Your task to perform on an android device: Open accessibility settings Image 0: 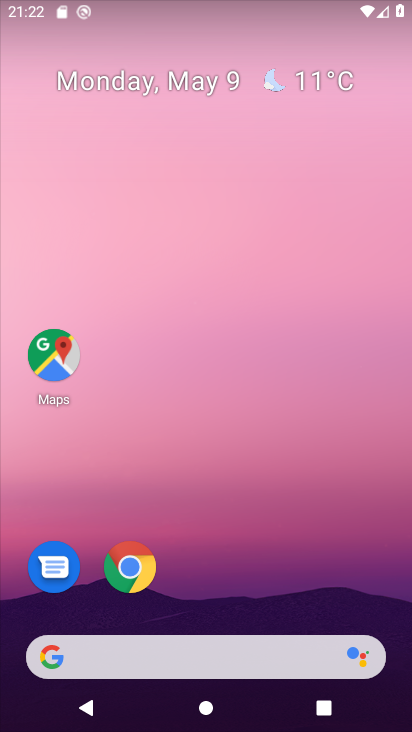
Step 0: drag from (270, 504) to (237, 80)
Your task to perform on an android device: Open accessibility settings Image 1: 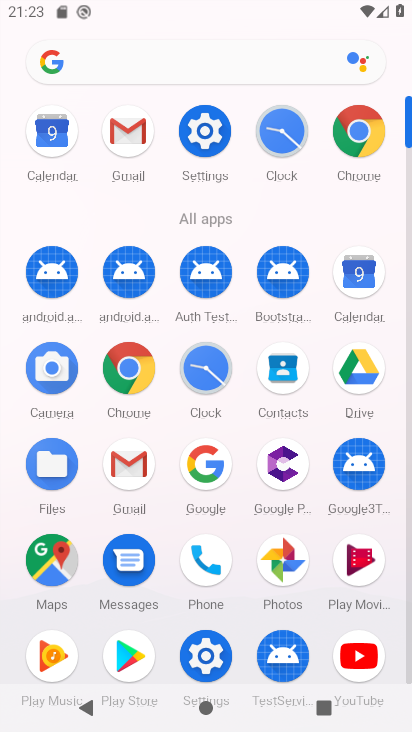
Step 1: click (210, 127)
Your task to perform on an android device: Open accessibility settings Image 2: 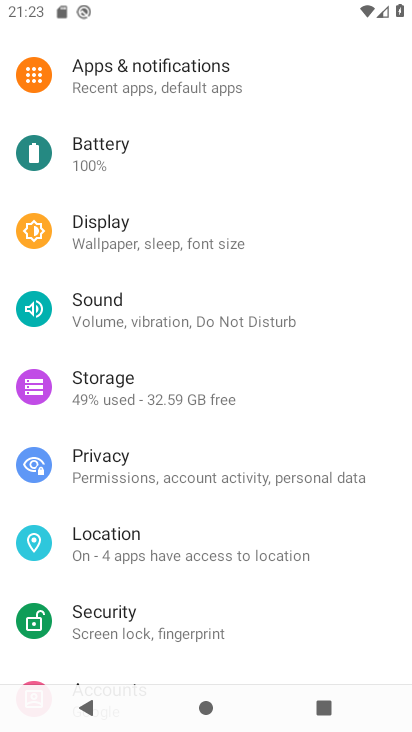
Step 2: drag from (188, 616) to (217, 195)
Your task to perform on an android device: Open accessibility settings Image 3: 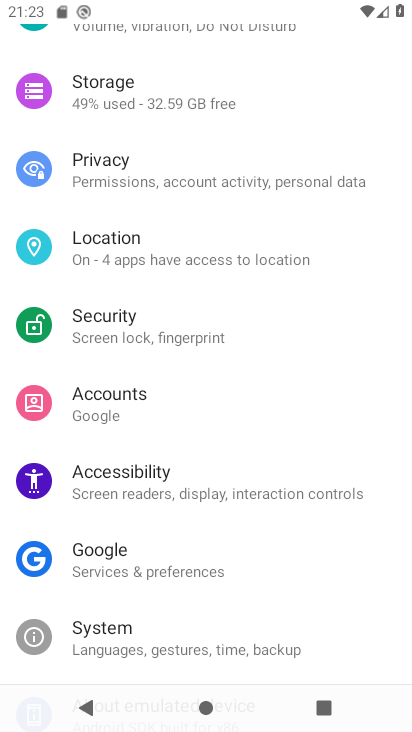
Step 3: click (175, 478)
Your task to perform on an android device: Open accessibility settings Image 4: 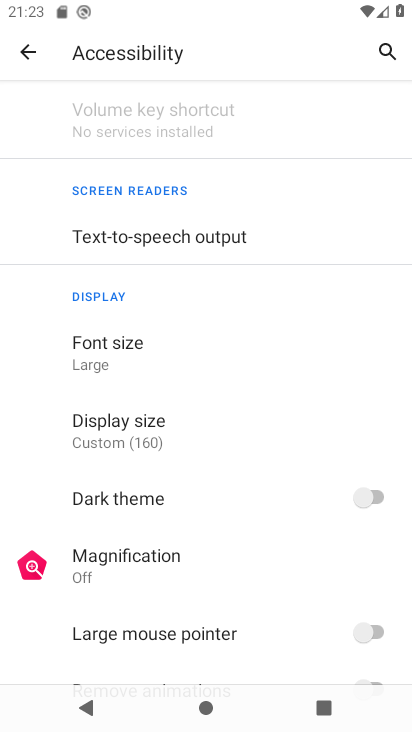
Step 4: task complete